Your task to perform on an android device: Go to Reddit.com Image 0: 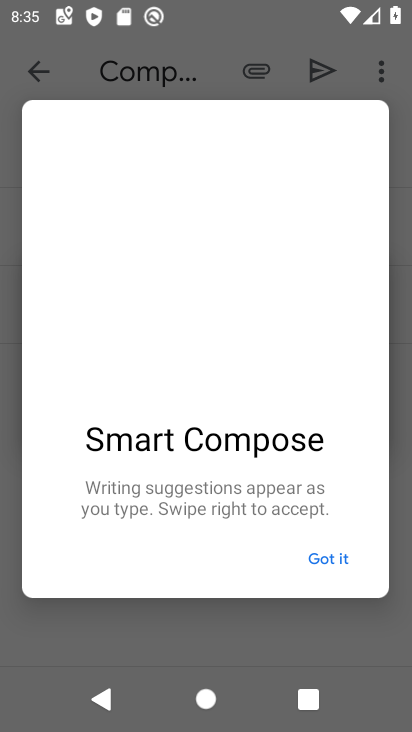
Step 0: press home button
Your task to perform on an android device: Go to Reddit.com Image 1: 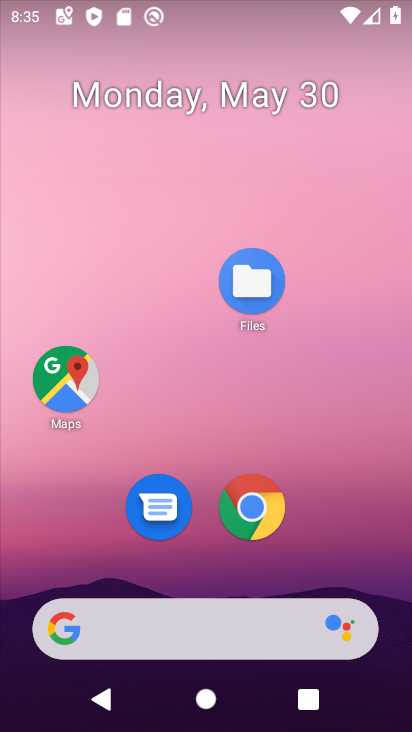
Step 1: click (262, 508)
Your task to perform on an android device: Go to Reddit.com Image 2: 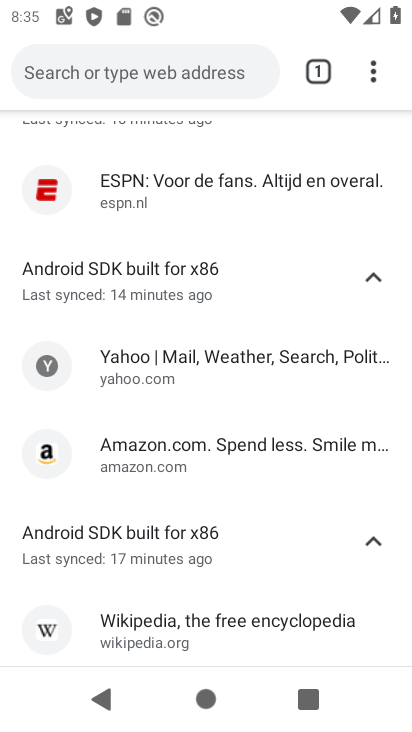
Step 2: click (140, 85)
Your task to perform on an android device: Go to Reddit.com Image 3: 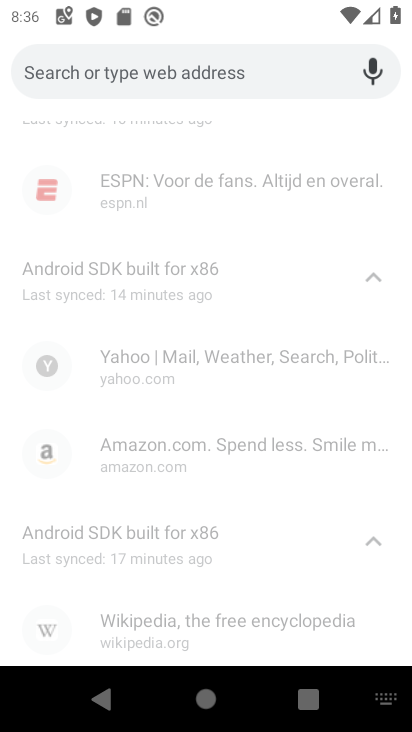
Step 3: type "Reddit.com"
Your task to perform on an android device: Go to Reddit.com Image 4: 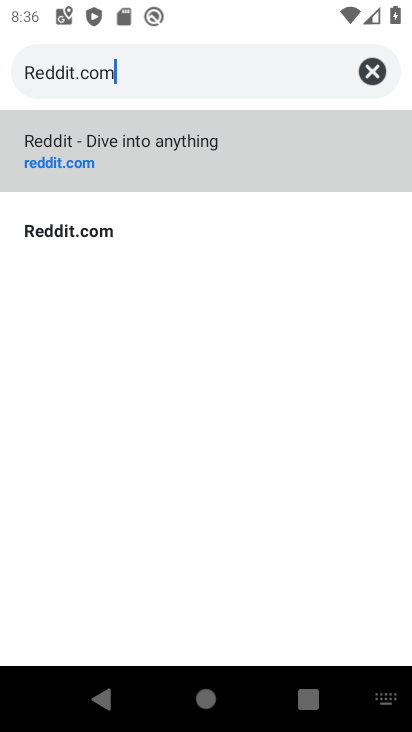
Step 4: click (37, 148)
Your task to perform on an android device: Go to Reddit.com Image 5: 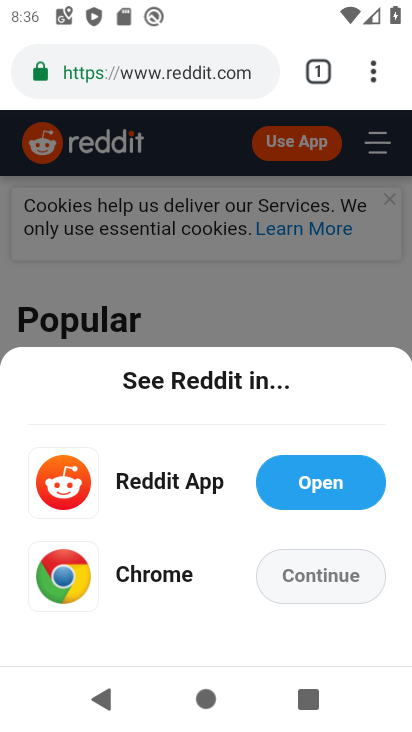
Step 5: task complete